Your task to perform on an android device: Go to display settings Image 0: 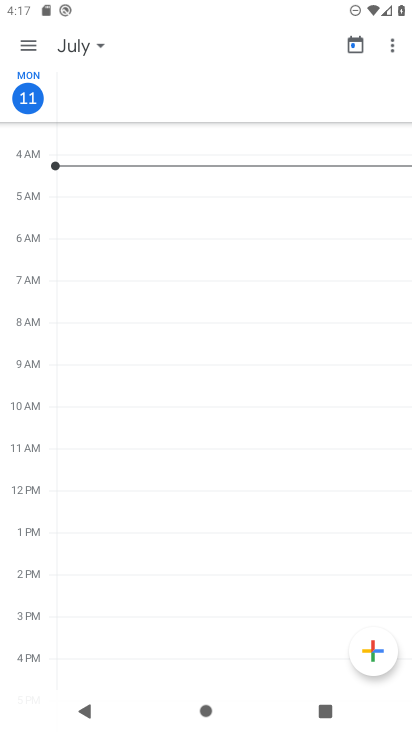
Step 0: press home button
Your task to perform on an android device: Go to display settings Image 1: 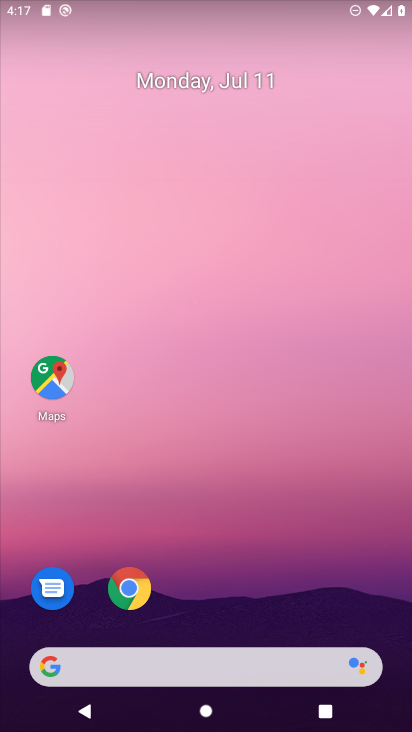
Step 1: drag from (250, 599) to (134, 42)
Your task to perform on an android device: Go to display settings Image 2: 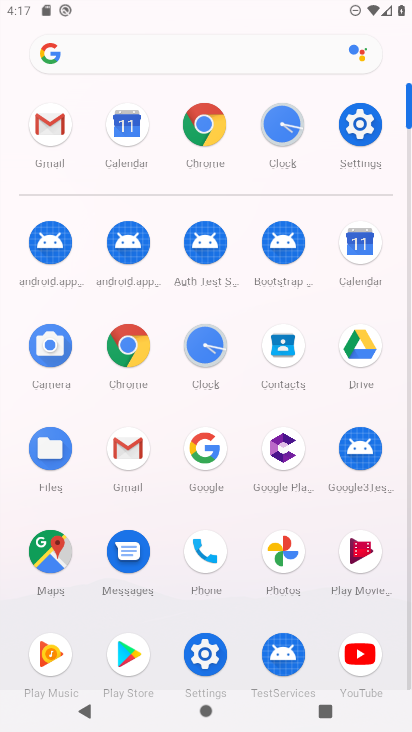
Step 2: click (362, 119)
Your task to perform on an android device: Go to display settings Image 3: 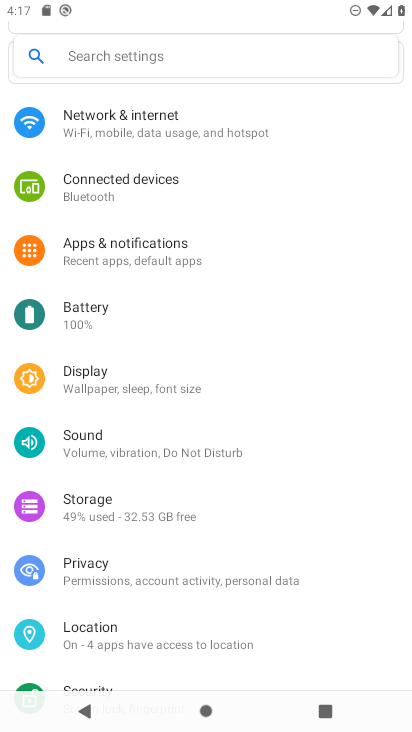
Step 3: click (116, 385)
Your task to perform on an android device: Go to display settings Image 4: 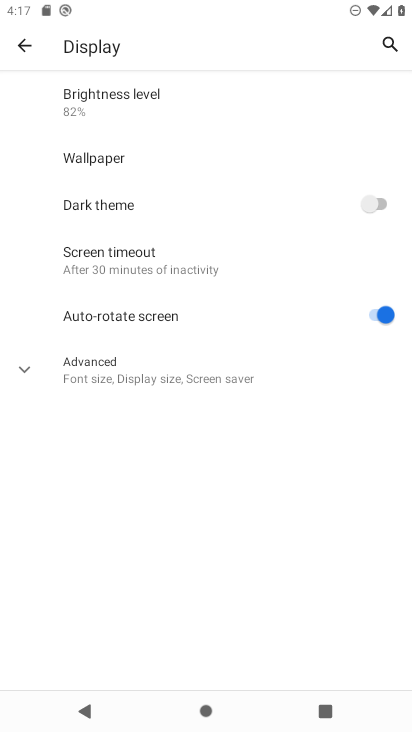
Step 4: task complete